Your task to perform on an android device: Open internet settings Image 0: 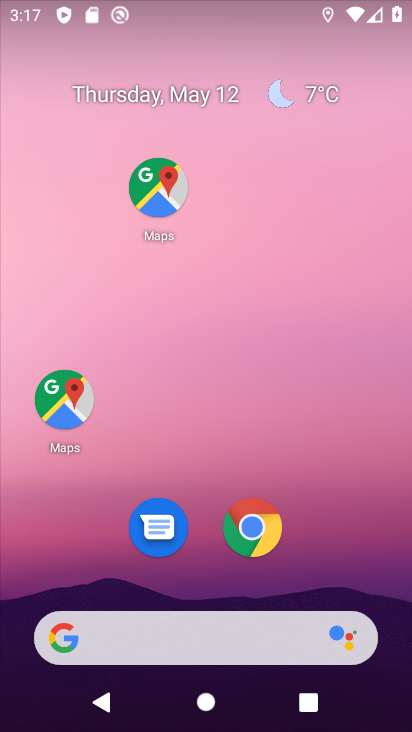
Step 0: drag from (218, 606) to (136, 0)
Your task to perform on an android device: Open internet settings Image 1: 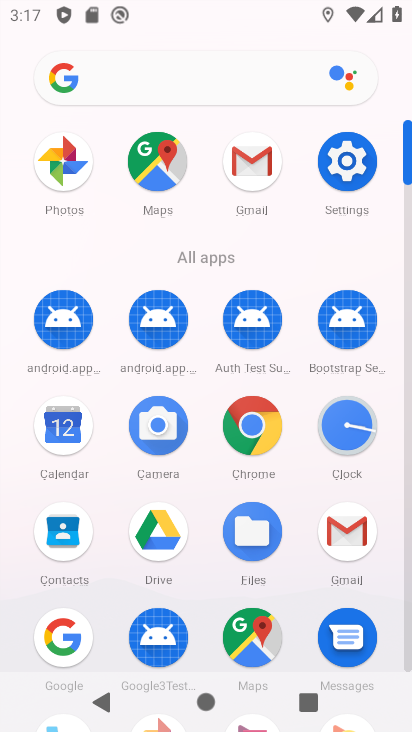
Step 1: click (338, 169)
Your task to perform on an android device: Open internet settings Image 2: 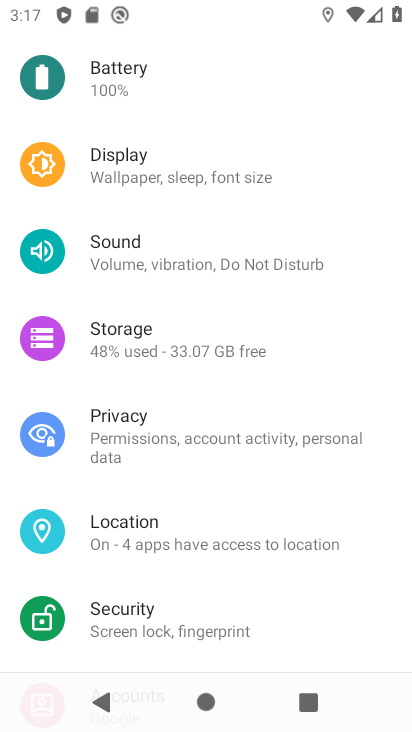
Step 2: drag from (183, 156) to (153, 659)
Your task to perform on an android device: Open internet settings Image 3: 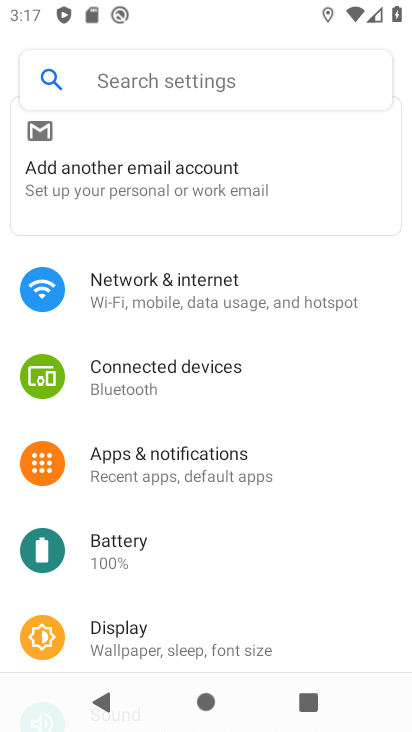
Step 3: click (148, 173)
Your task to perform on an android device: Open internet settings Image 4: 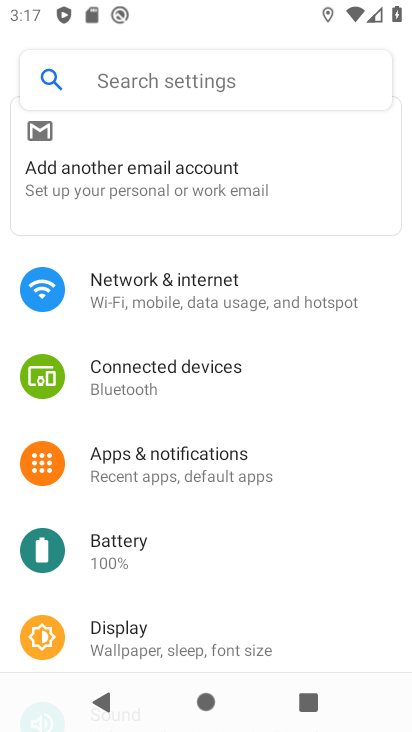
Step 4: drag from (149, 173) to (155, 468)
Your task to perform on an android device: Open internet settings Image 5: 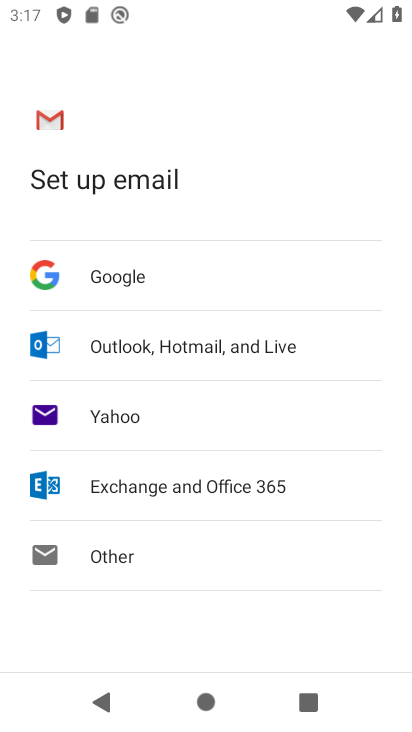
Step 5: press back button
Your task to perform on an android device: Open internet settings Image 6: 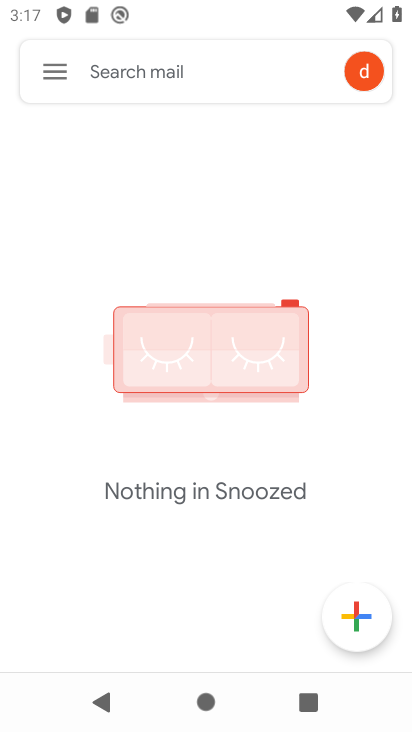
Step 6: press home button
Your task to perform on an android device: Open internet settings Image 7: 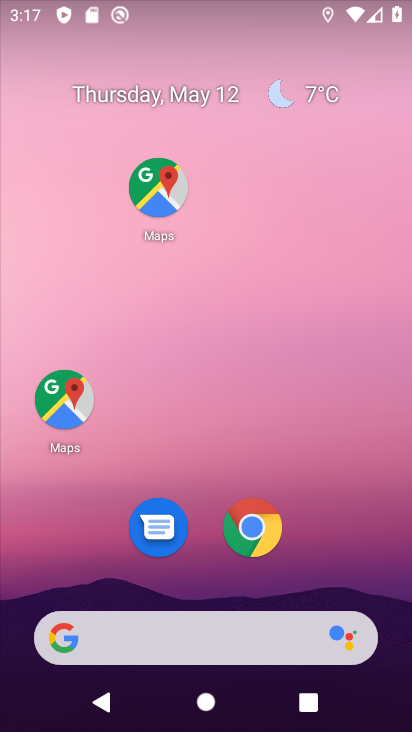
Step 7: drag from (176, 593) to (104, 15)
Your task to perform on an android device: Open internet settings Image 8: 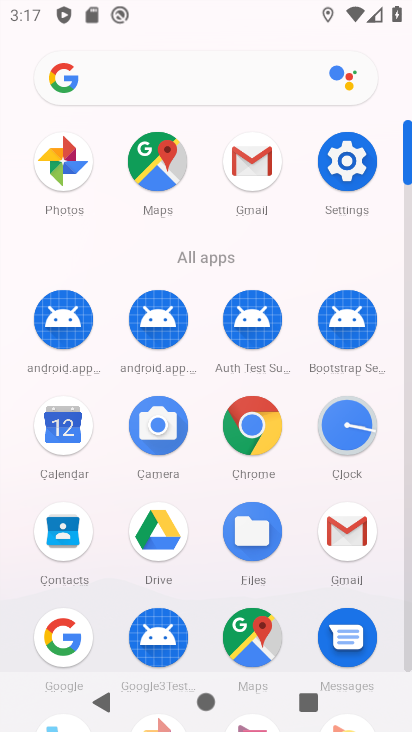
Step 8: click (325, 173)
Your task to perform on an android device: Open internet settings Image 9: 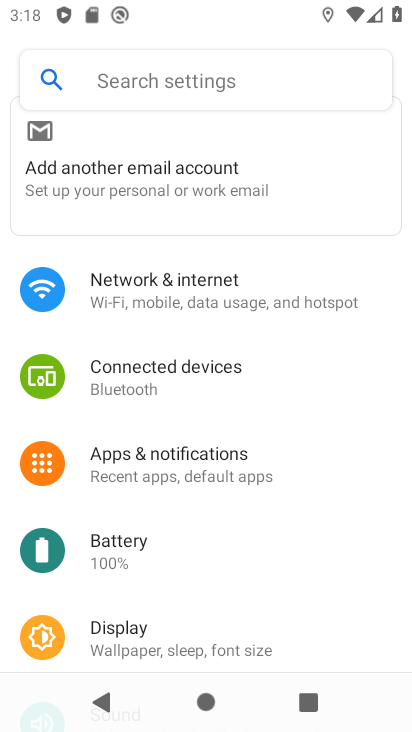
Step 9: click (152, 280)
Your task to perform on an android device: Open internet settings Image 10: 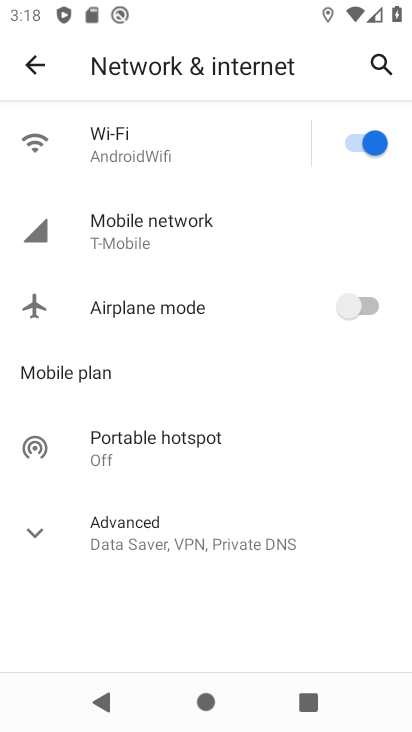
Step 10: click (170, 228)
Your task to perform on an android device: Open internet settings Image 11: 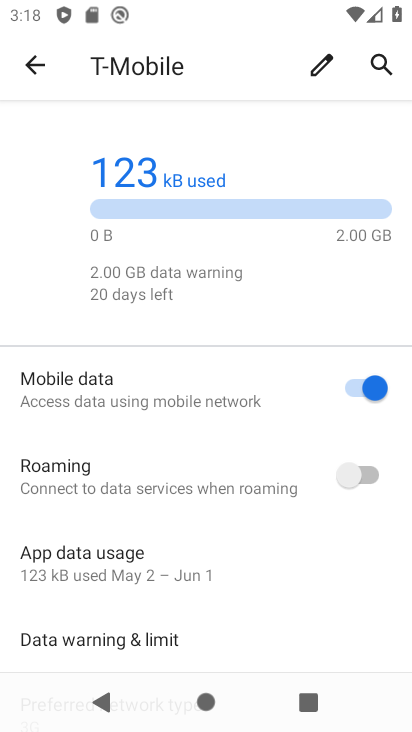
Step 11: task complete